Your task to perform on an android device: turn off airplane mode Image 0: 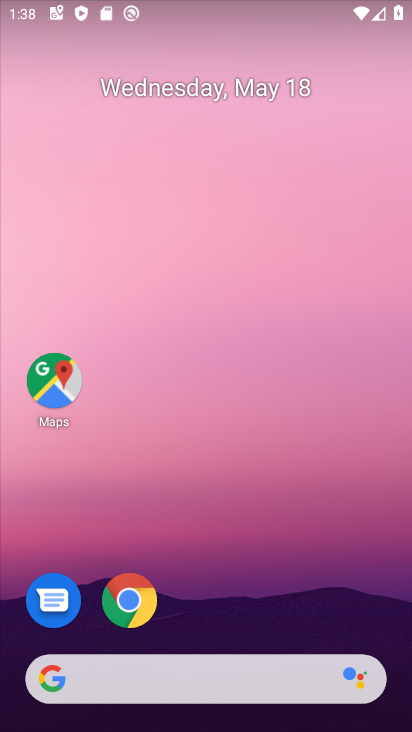
Step 0: drag from (234, 585) to (194, 5)
Your task to perform on an android device: turn off airplane mode Image 1: 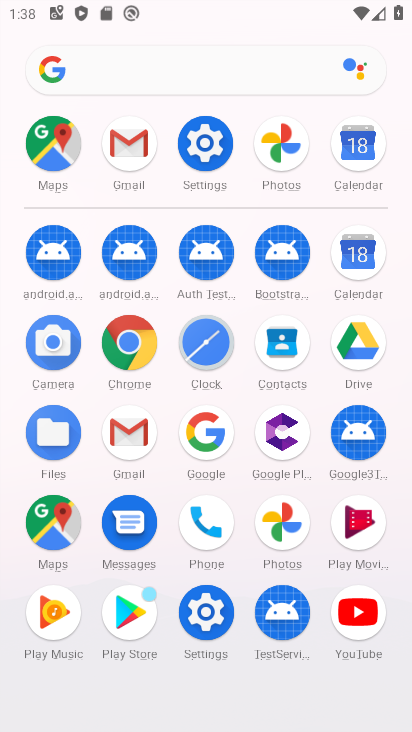
Step 1: click (204, 144)
Your task to perform on an android device: turn off airplane mode Image 2: 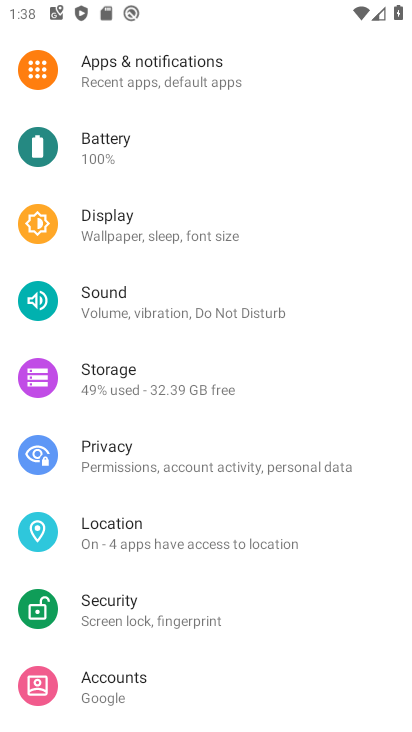
Step 2: drag from (195, 364) to (182, 444)
Your task to perform on an android device: turn off airplane mode Image 3: 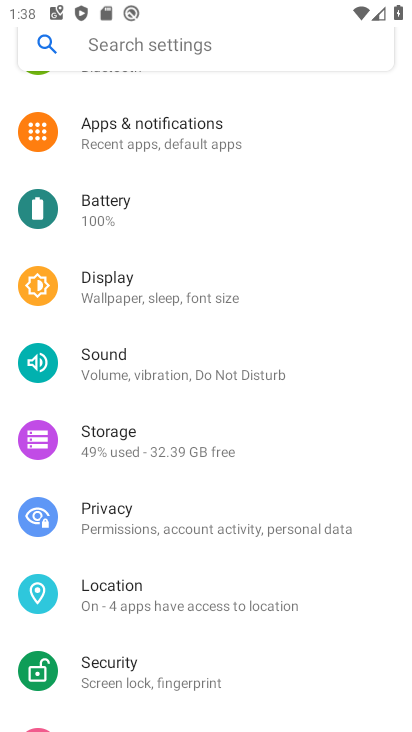
Step 3: drag from (190, 260) to (181, 369)
Your task to perform on an android device: turn off airplane mode Image 4: 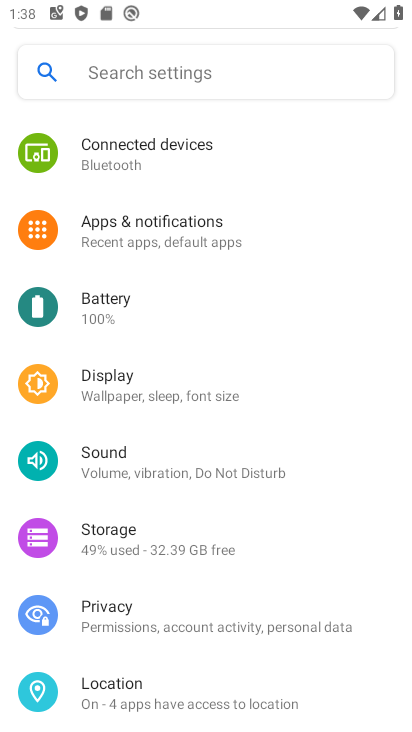
Step 4: drag from (191, 193) to (207, 379)
Your task to perform on an android device: turn off airplane mode Image 5: 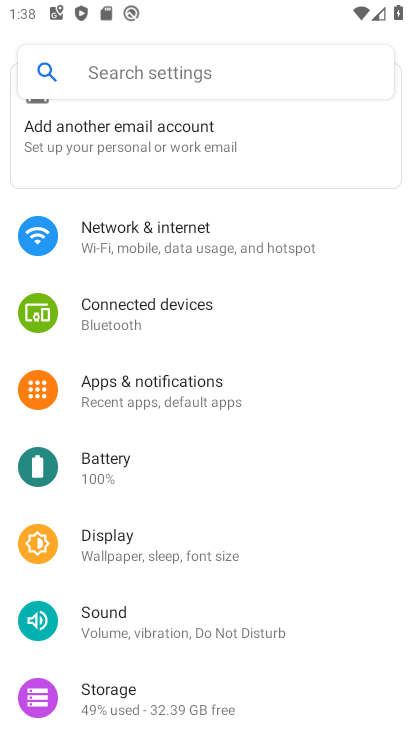
Step 5: click (174, 236)
Your task to perform on an android device: turn off airplane mode Image 6: 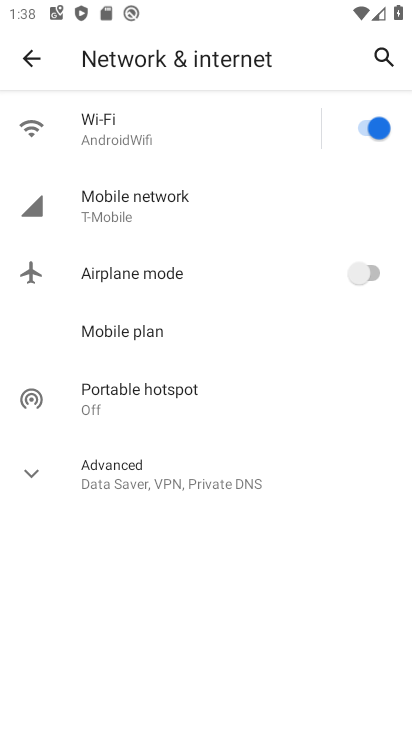
Step 6: task complete